Your task to perform on an android device: What is the recent news? Image 0: 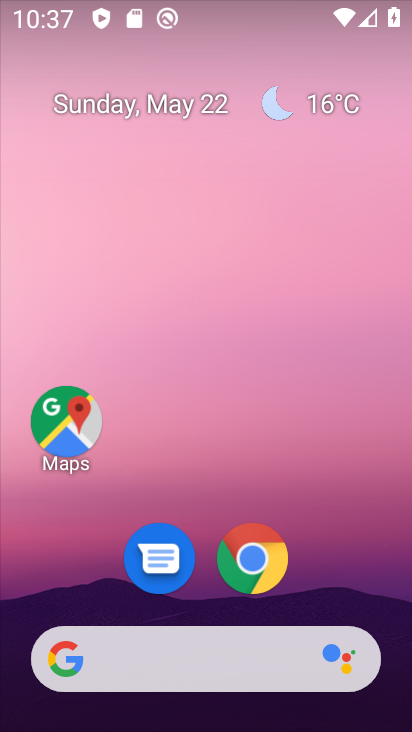
Step 0: click (139, 654)
Your task to perform on an android device: What is the recent news? Image 1: 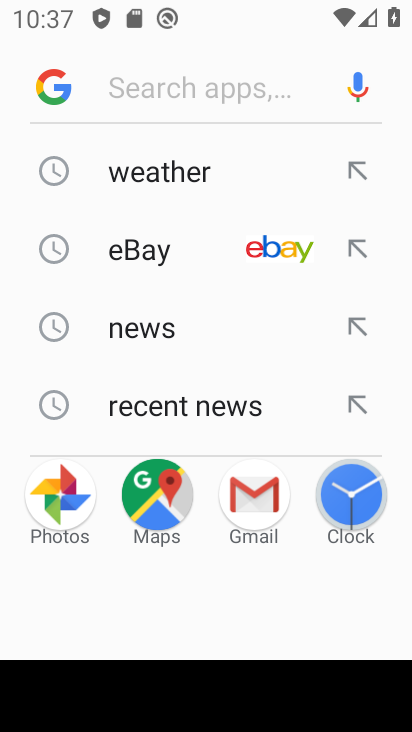
Step 1: click (164, 410)
Your task to perform on an android device: What is the recent news? Image 2: 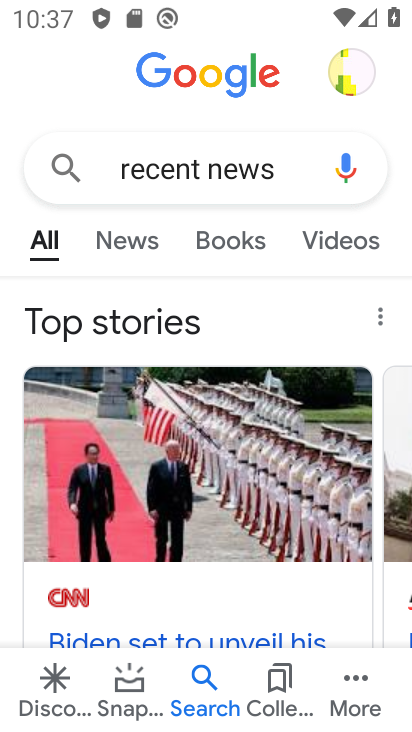
Step 2: click (122, 255)
Your task to perform on an android device: What is the recent news? Image 3: 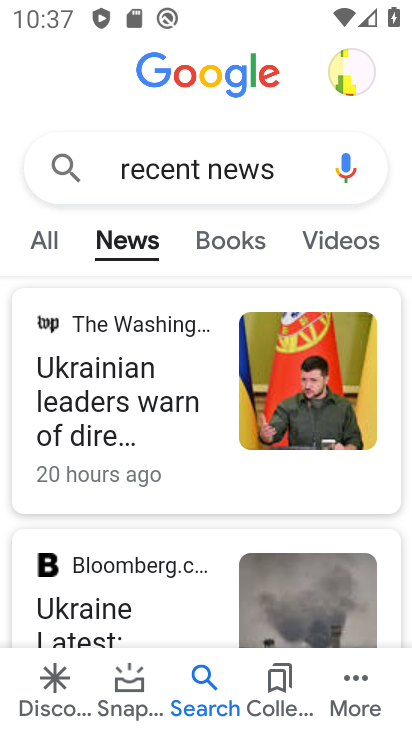
Step 3: drag from (167, 473) to (198, 54)
Your task to perform on an android device: What is the recent news? Image 4: 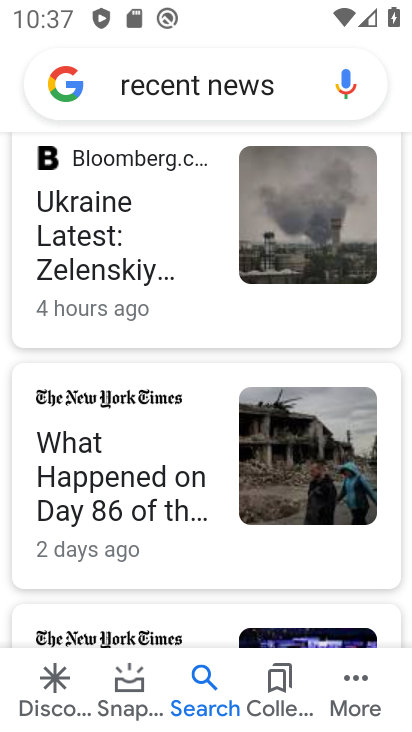
Step 4: drag from (157, 487) to (149, 107)
Your task to perform on an android device: What is the recent news? Image 5: 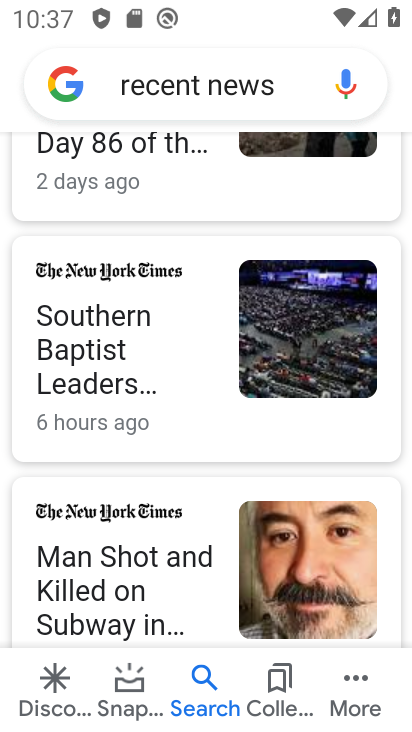
Step 5: drag from (125, 412) to (120, 176)
Your task to perform on an android device: What is the recent news? Image 6: 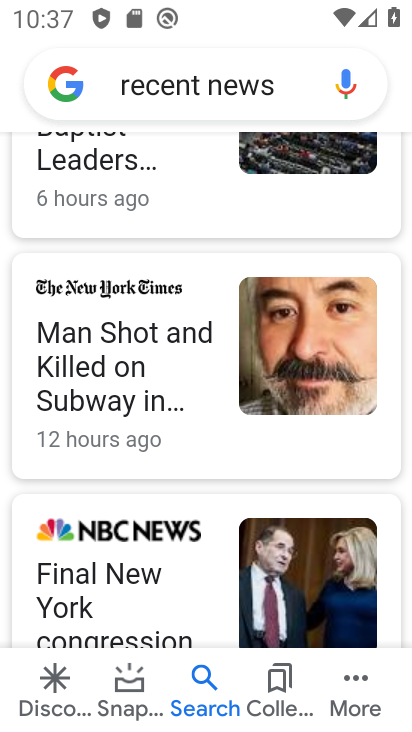
Step 6: drag from (119, 486) to (120, 182)
Your task to perform on an android device: What is the recent news? Image 7: 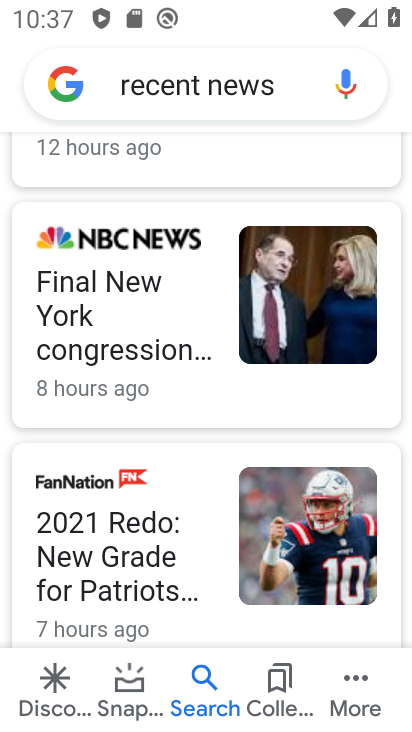
Step 7: drag from (119, 454) to (116, 203)
Your task to perform on an android device: What is the recent news? Image 8: 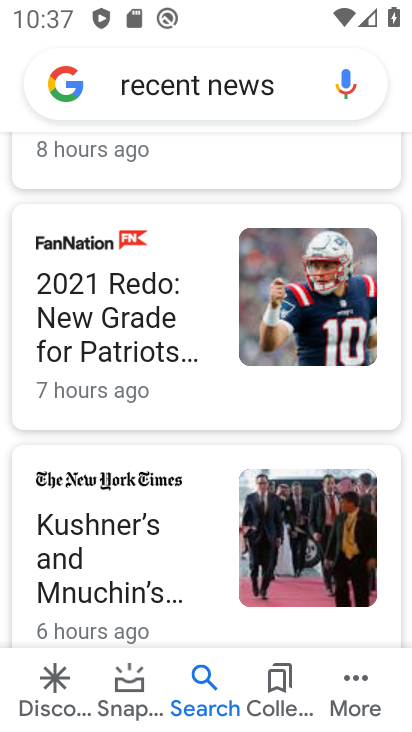
Step 8: drag from (112, 475) to (130, 236)
Your task to perform on an android device: What is the recent news? Image 9: 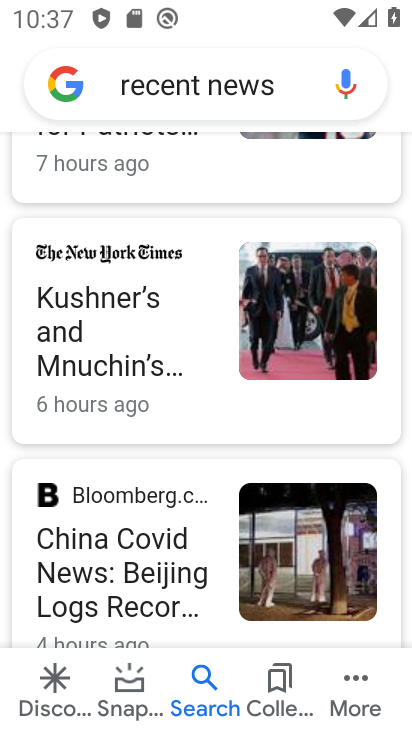
Step 9: click (114, 589)
Your task to perform on an android device: What is the recent news? Image 10: 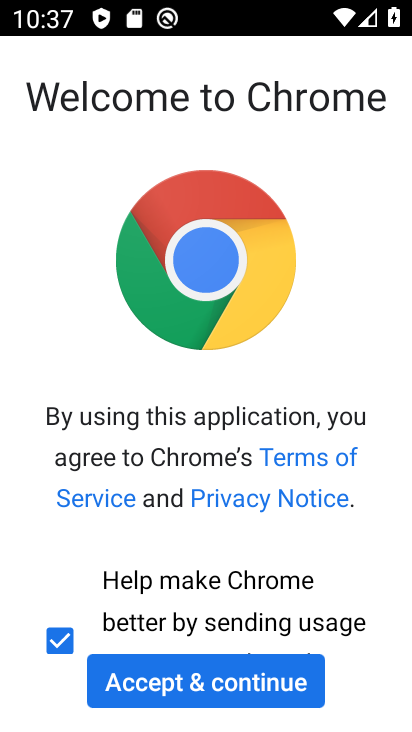
Step 10: click (146, 692)
Your task to perform on an android device: What is the recent news? Image 11: 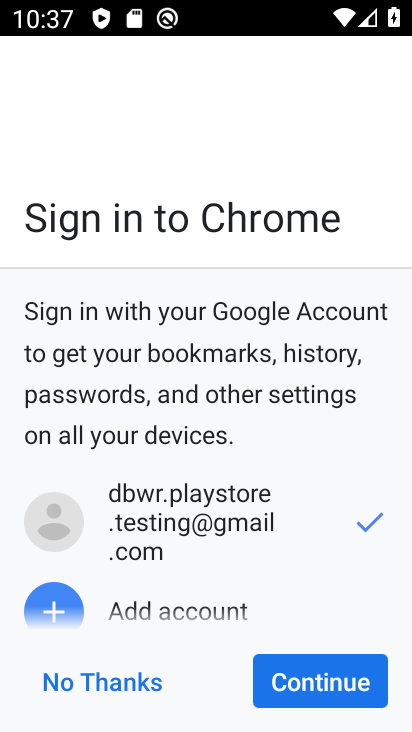
Step 11: click (146, 692)
Your task to perform on an android device: What is the recent news? Image 12: 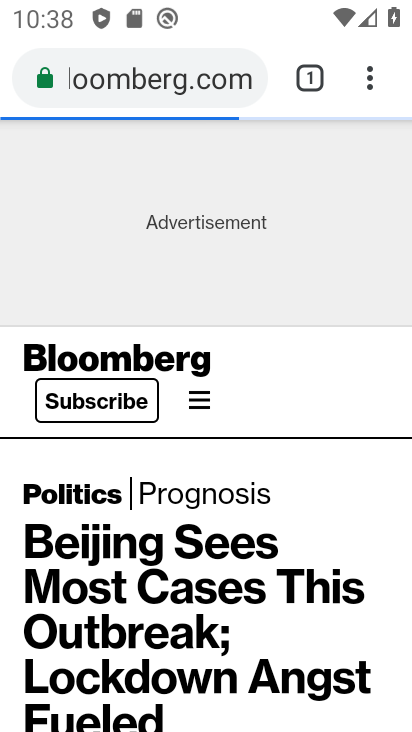
Step 12: task complete